Your task to perform on an android device: Open Maps and search for coffee Image 0: 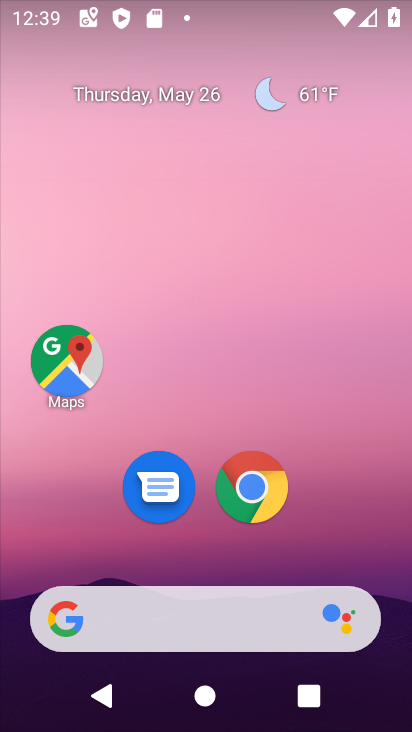
Step 0: drag from (262, 663) to (155, 90)
Your task to perform on an android device: Open Maps and search for coffee Image 1: 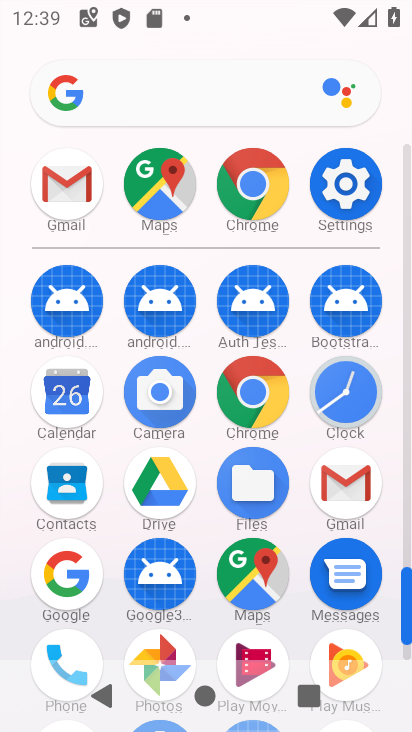
Step 1: click (246, 578)
Your task to perform on an android device: Open Maps and search for coffee Image 2: 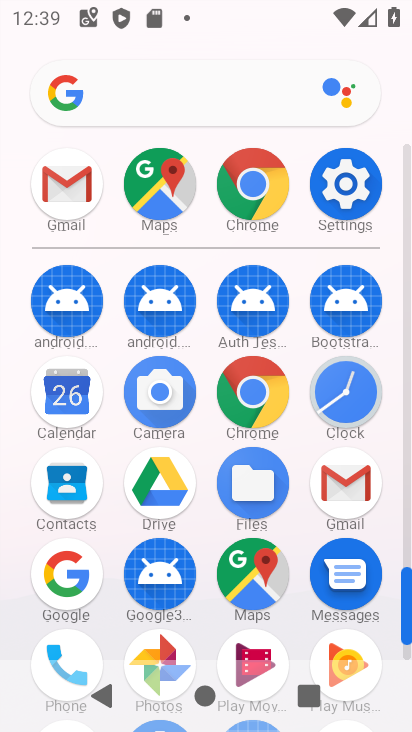
Step 2: click (245, 578)
Your task to perform on an android device: Open Maps and search for coffee Image 3: 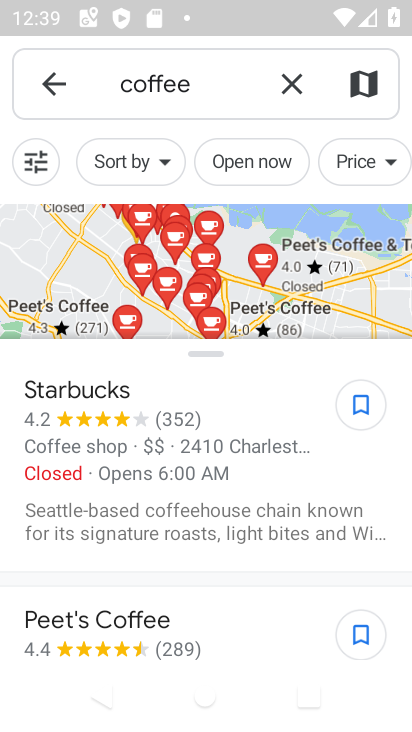
Step 3: task complete